Your task to perform on an android device: open app "Pinterest" (install if not already installed) Image 0: 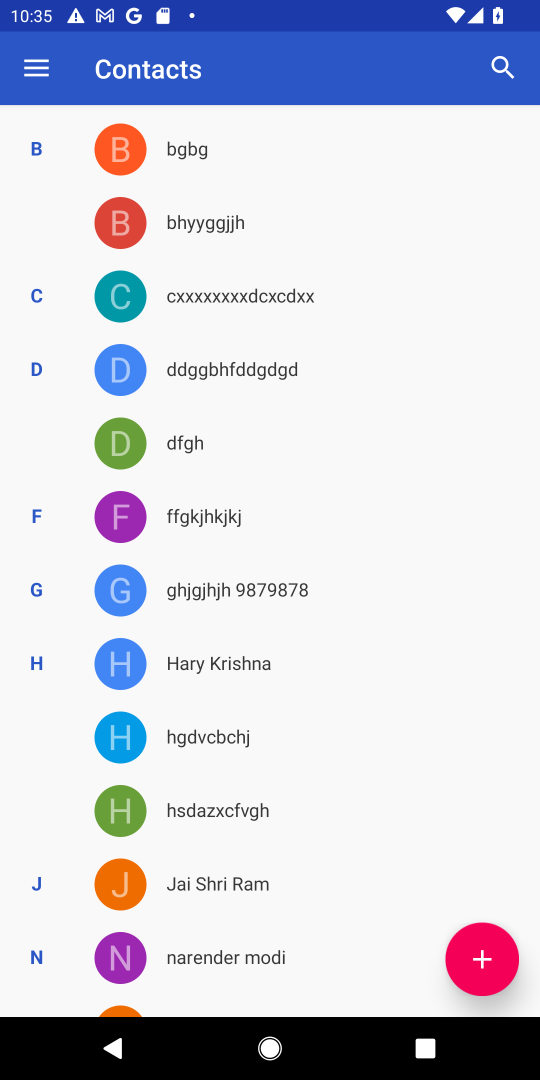
Step 0: press home button
Your task to perform on an android device: open app "Pinterest" (install if not already installed) Image 1: 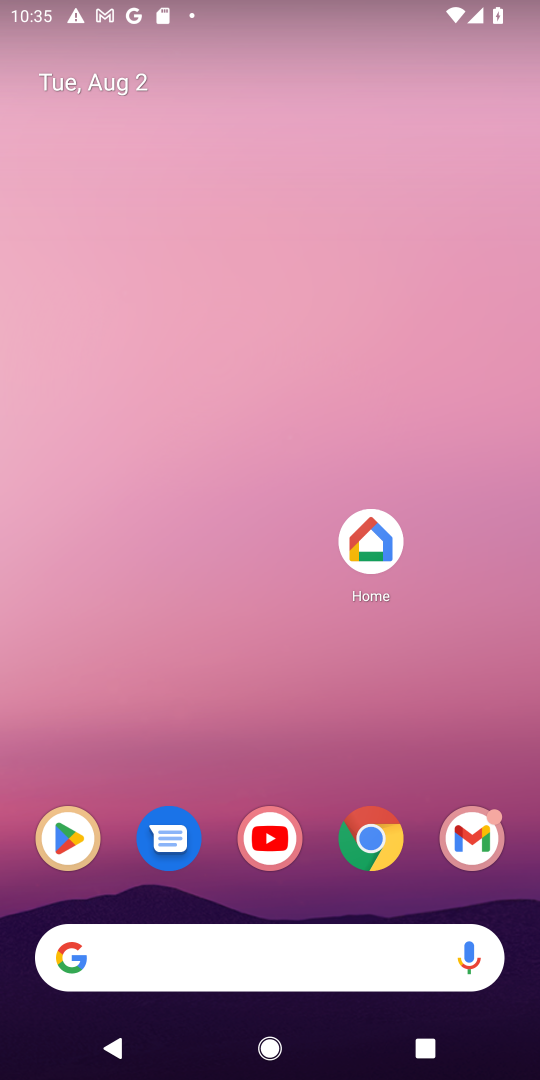
Step 1: drag from (209, 769) to (300, 181)
Your task to perform on an android device: open app "Pinterest" (install if not already installed) Image 2: 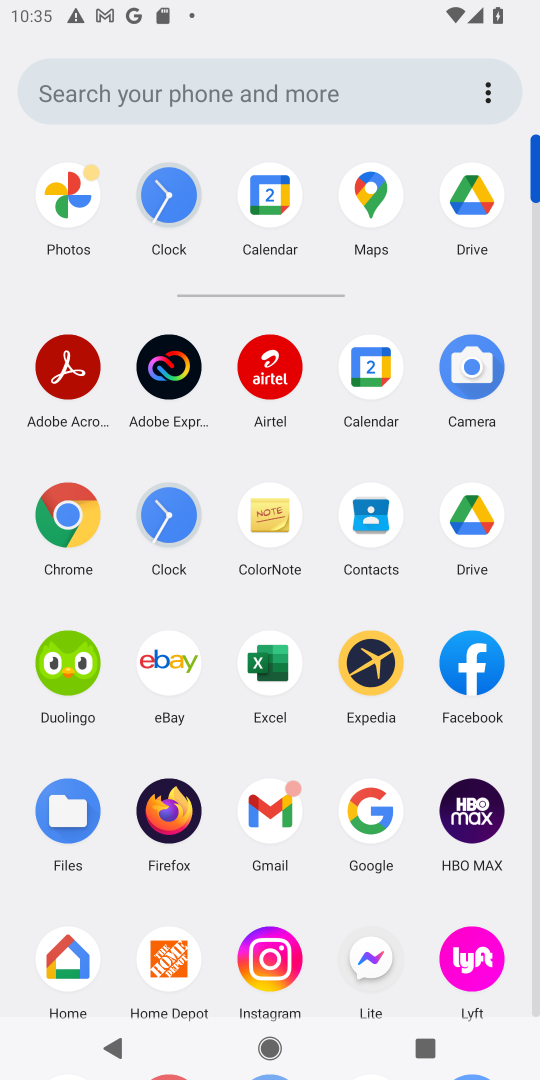
Step 2: drag from (310, 887) to (314, 706)
Your task to perform on an android device: open app "Pinterest" (install if not already installed) Image 3: 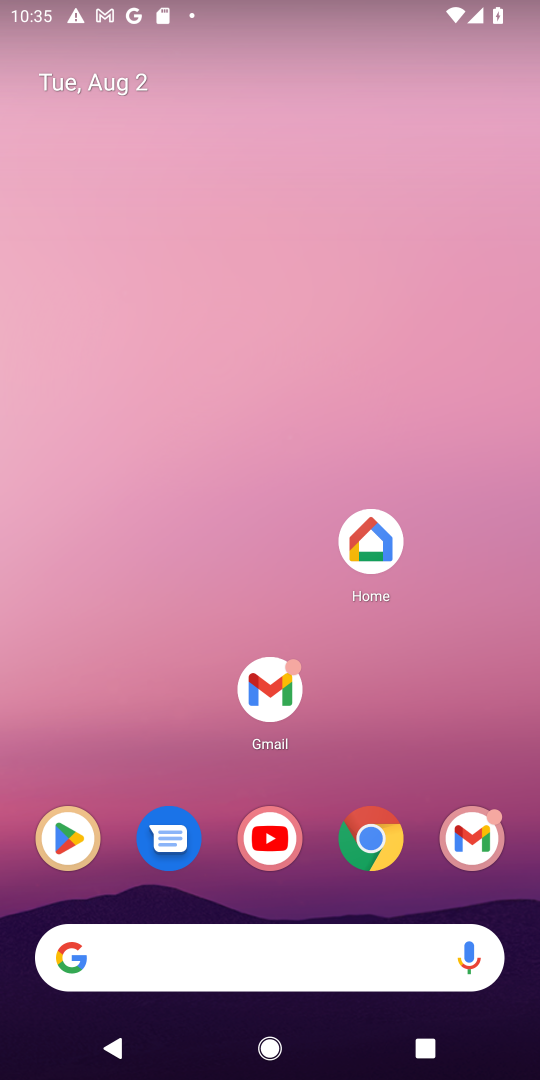
Step 3: drag from (323, 891) to (339, 312)
Your task to perform on an android device: open app "Pinterest" (install if not already installed) Image 4: 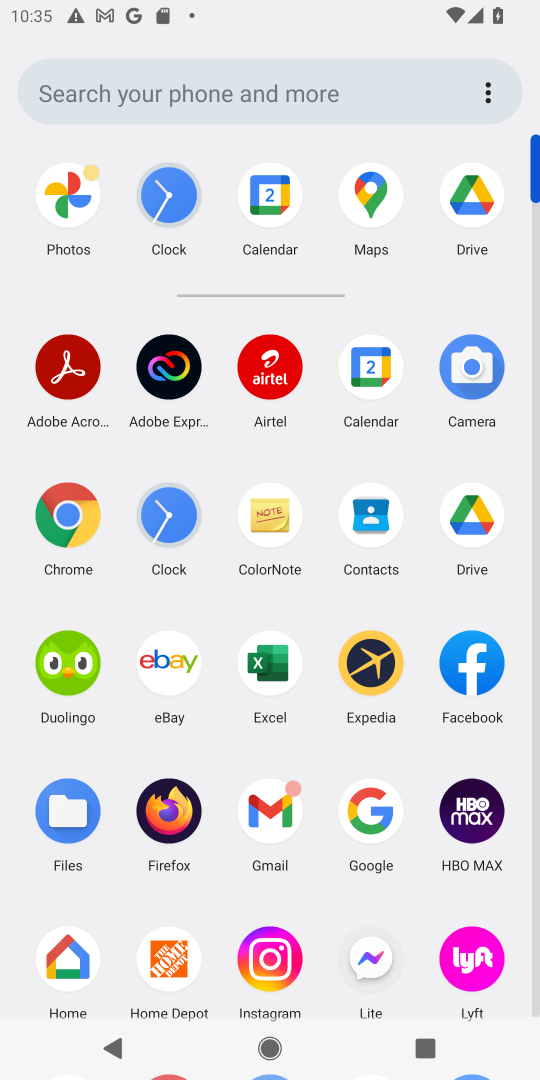
Step 4: drag from (212, 879) to (222, 666)
Your task to perform on an android device: open app "Pinterest" (install if not already installed) Image 5: 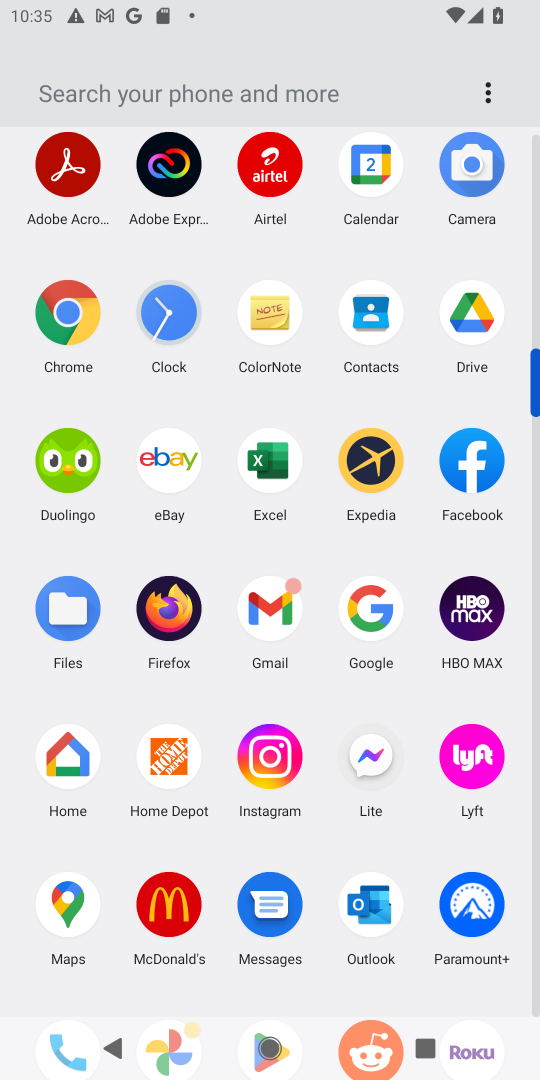
Step 5: drag from (215, 957) to (218, 636)
Your task to perform on an android device: open app "Pinterest" (install if not already installed) Image 6: 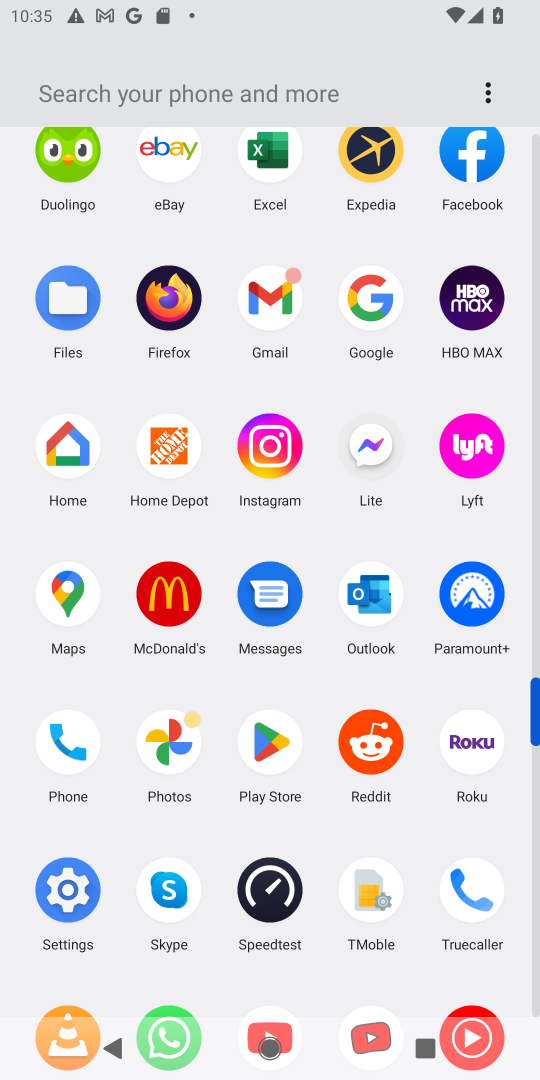
Step 6: click (264, 765)
Your task to perform on an android device: open app "Pinterest" (install if not already installed) Image 7: 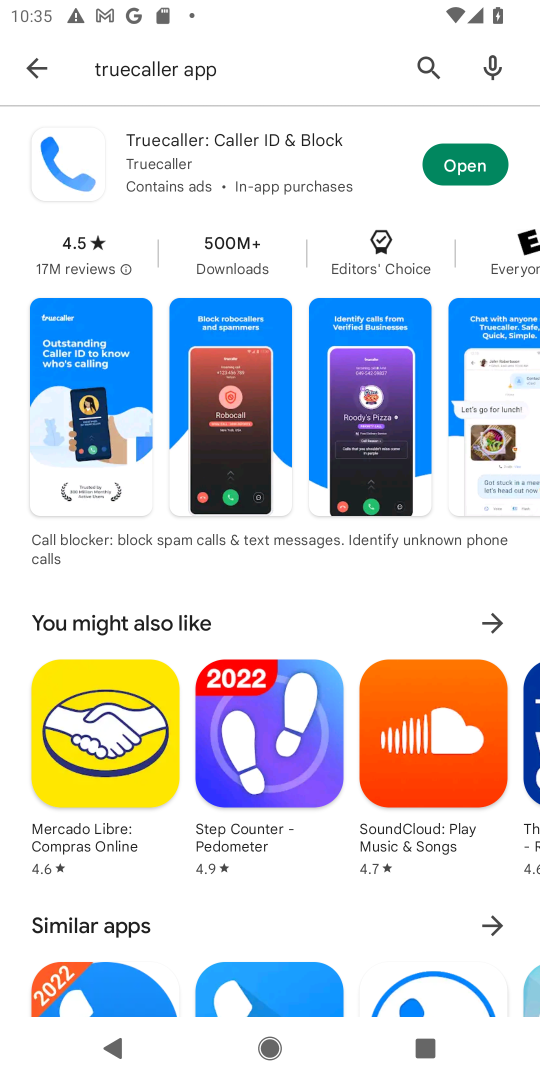
Step 7: click (418, 51)
Your task to perform on an android device: open app "Pinterest" (install if not already installed) Image 8: 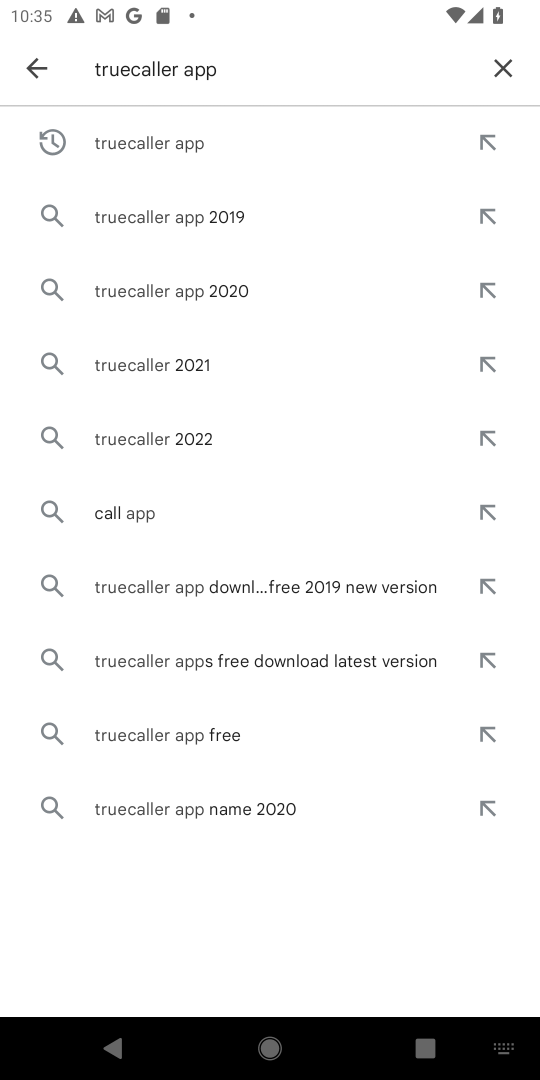
Step 8: click (487, 70)
Your task to perform on an android device: open app "Pinterest" (install if not already installed) Image 9: 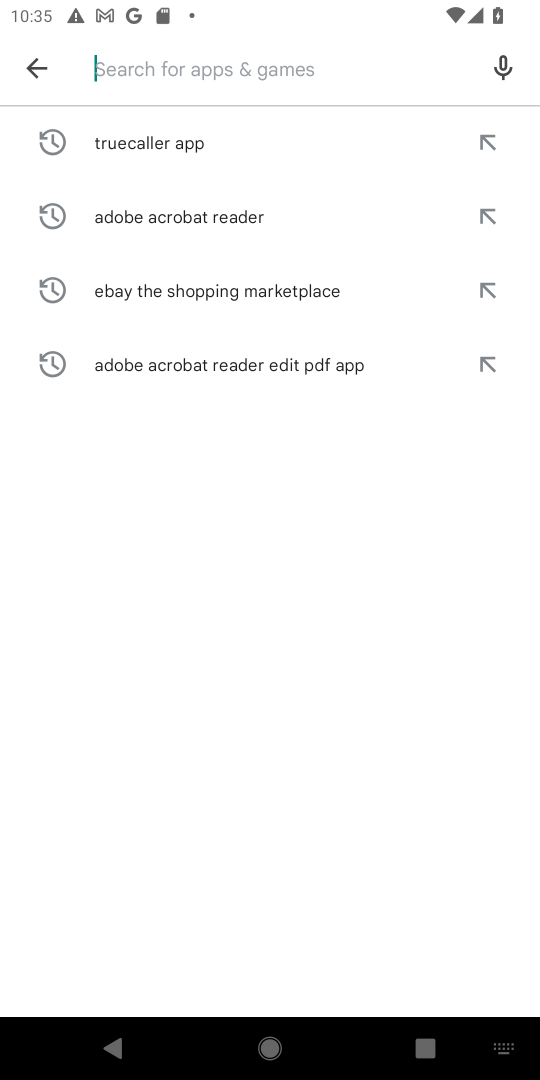
Step 9: click (336, 86)
Your task to perform on an android device: open app "Pinterest" (install if not already installed) Image 10: 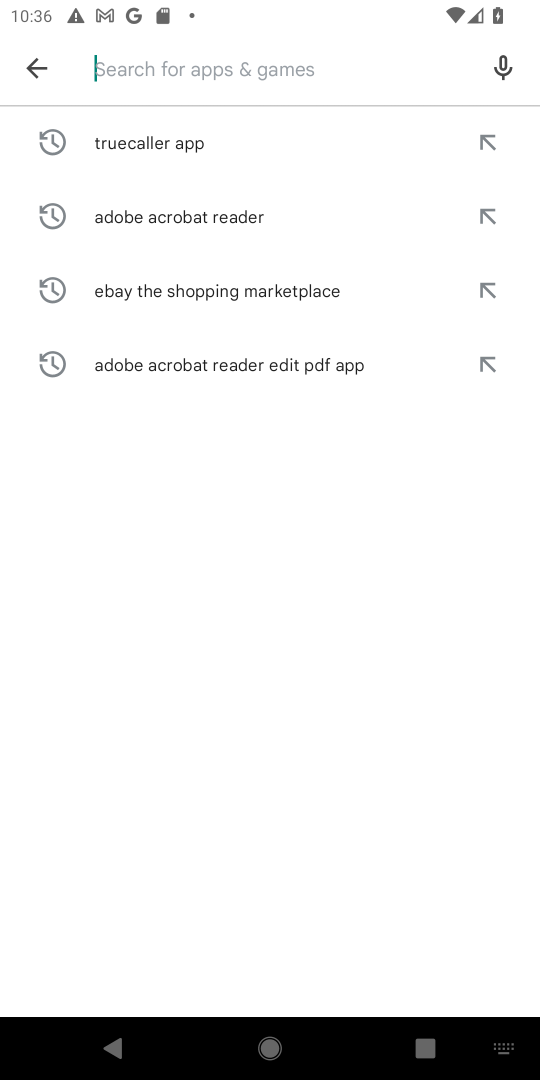
Step 10: type "pinterest "
Your task to perform on an android device: open app "Pinterest" (install if not already installed) Image 11: 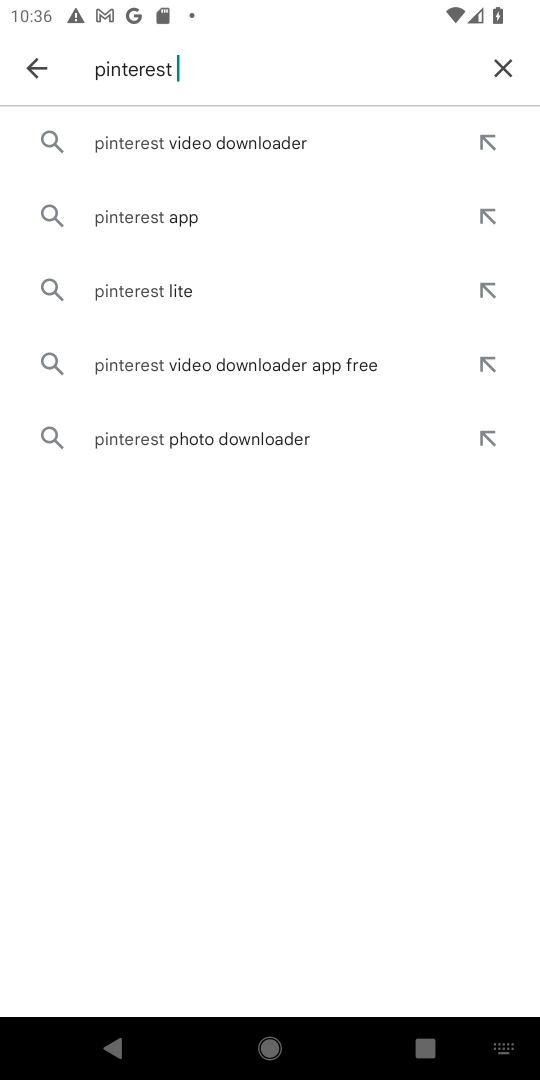
Step 11: click (161, 201)
Your task to perform on an android device: open app "Pinterest" (install if not already installed) Image 12: 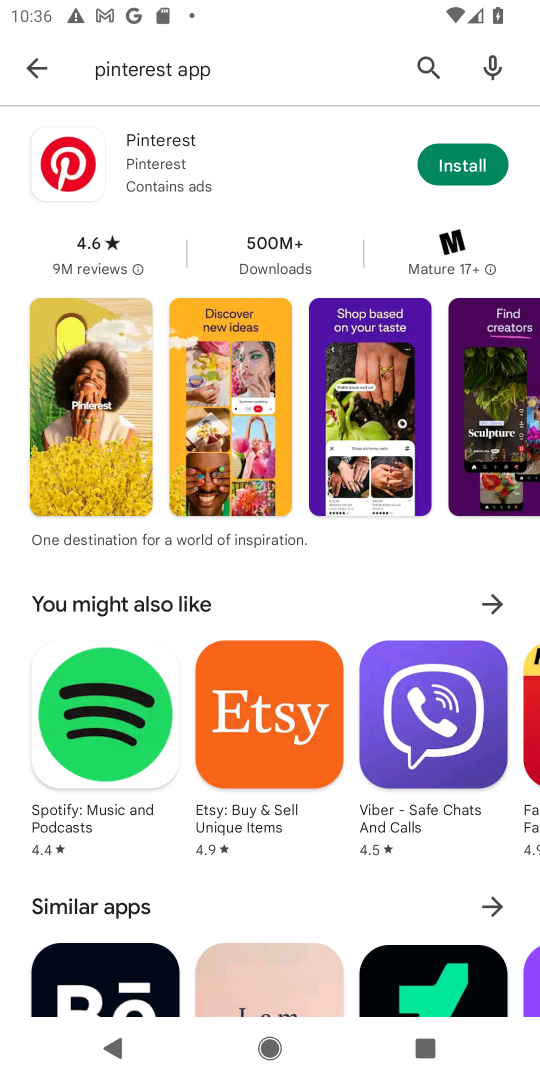
Step 12: click (480, 166)
Your task to perform on an android device: open app "Pinterest" (install if not already installed) Image 13: 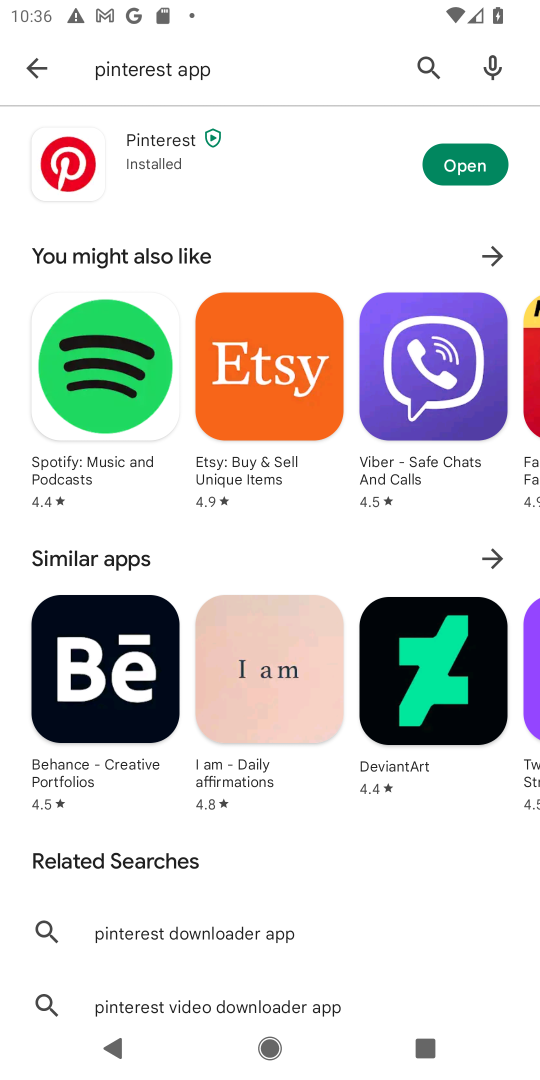
Step 13: click (450, 164)
Your task to perform on an android device: open app "Pinterest" (install if not already installed) Image 14: 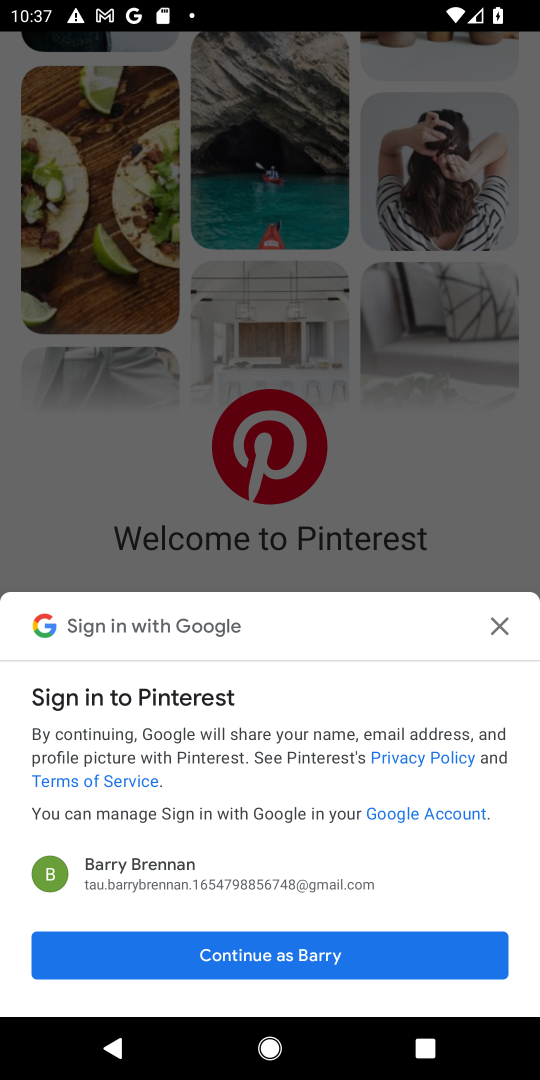
Step 14: task complete